Your task to perform on an android device: Set the phone to "Do not disturb". Image 0: 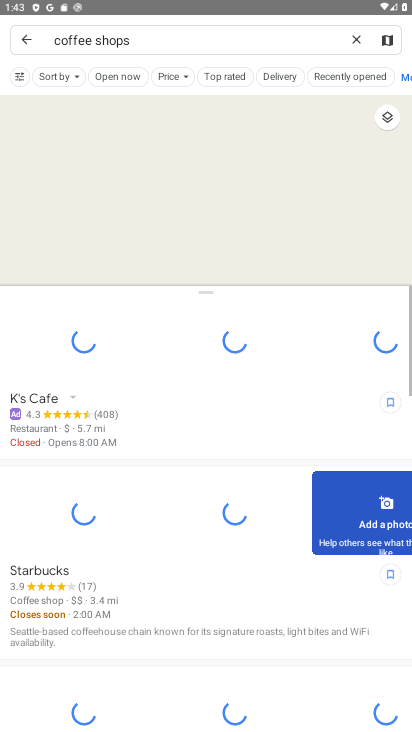
Step 0: press home button
Your task to perform on an android device: Set the phone to "Do not disturb". Image 1: 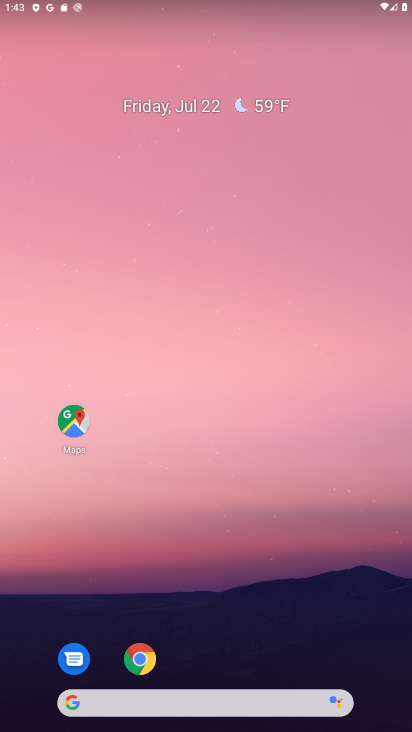
Step 1: drag from (318, 591) to (303, 148)
Your task to perform on an android device: Set the phone to "Do not disturb". Image 2: 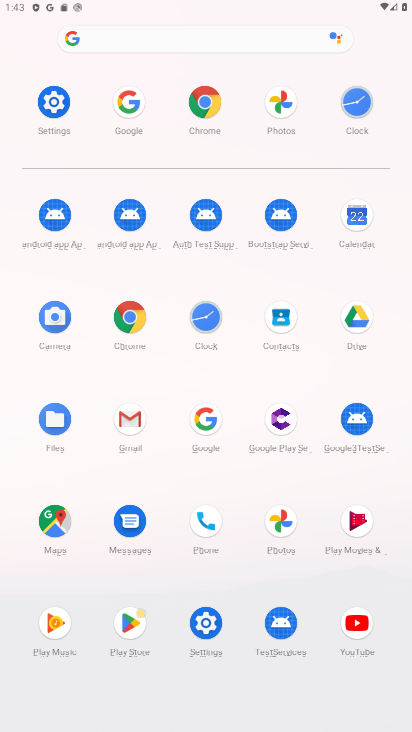
Step 2: click (63, 102)
Your task to perform on an android device: Set the phone to "Do not disturb". Image 3: 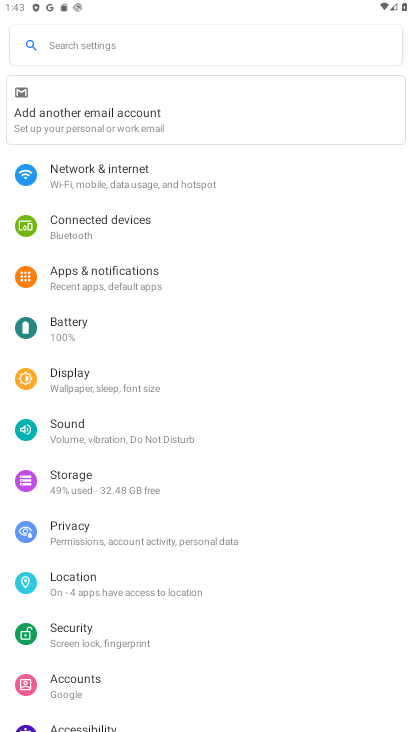
Step 3: click (155, 437)
Your task to perform on an android device: Set the phone to "Do not disturb". Image 4: 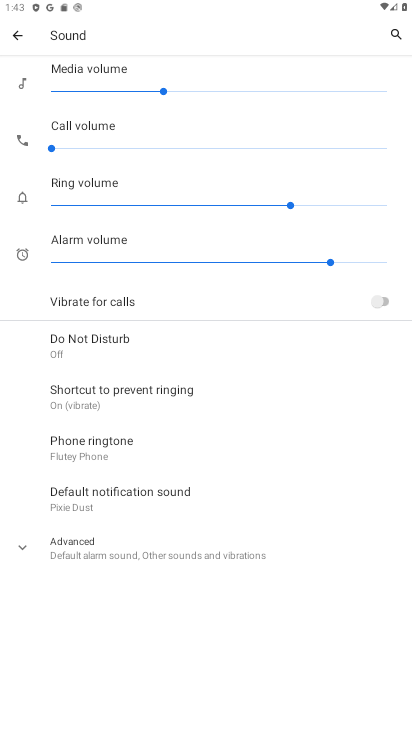
Step 4: click (104, 347)
Your task to perform on an android device: Set the phone to "Do not disturb". Image 5: 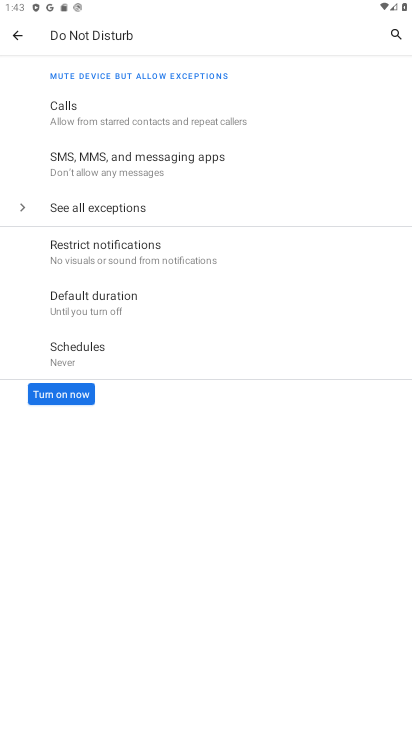
Step 5: click (60, 395)
Your task to perform on an android device: Set the phone to "Do not disturb". Image 6: 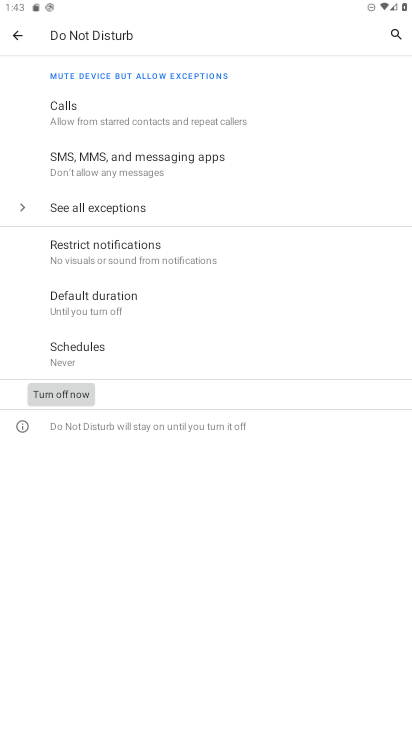
Step 6: task complete